Your task to perform on an android device: Go to Amazon Image 0: 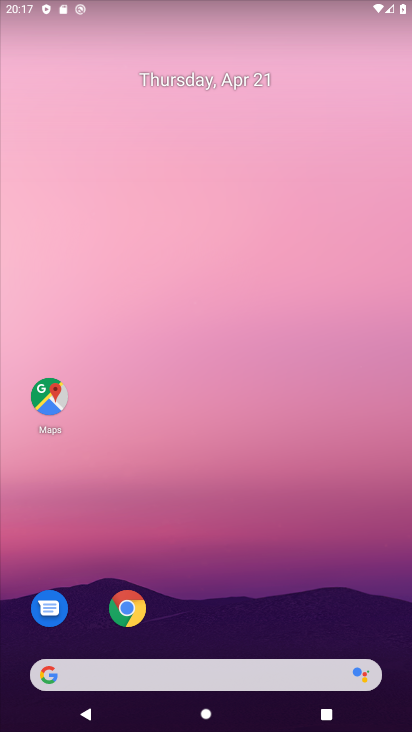
Step 0: click (127, 604)
Your task to perform on an android device: Go to Amazon Image 1: 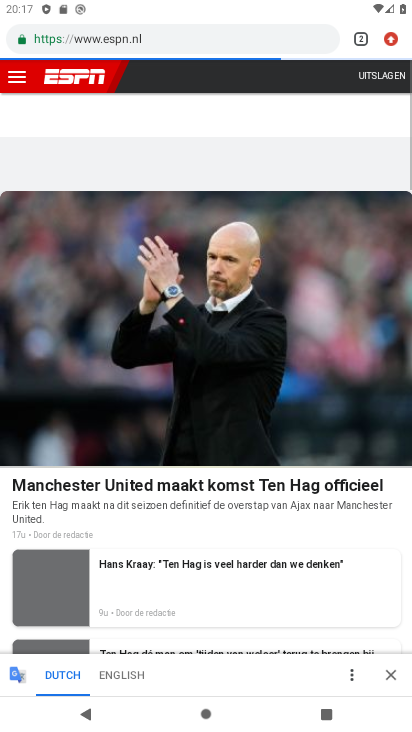
Step 1: click (360, 44)
Your task to perform on an android device: Go to Amazon Image 2: 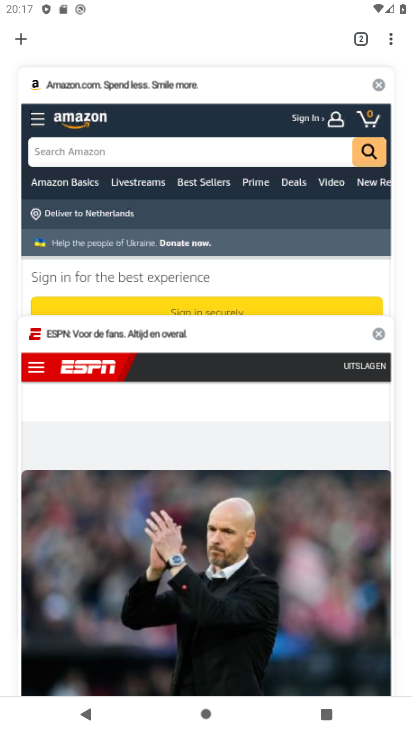
Step 2: click (84, 98)
Your task to perform on an android device: Go to Amazon Image 3: 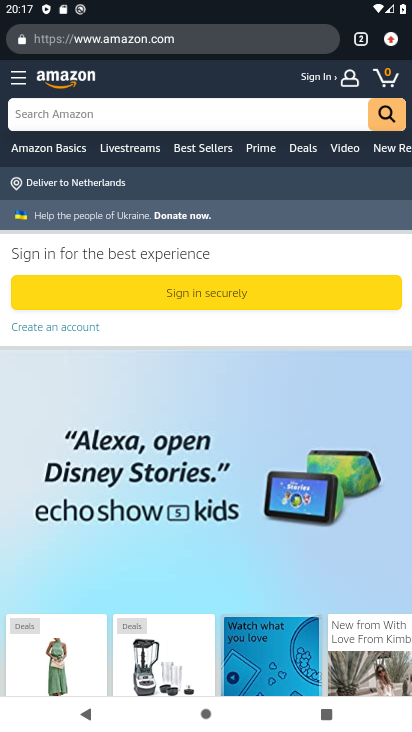
Step 3: task complete